Your task to perform on an android device: Open calendar and show me the first week of next month Image 0: 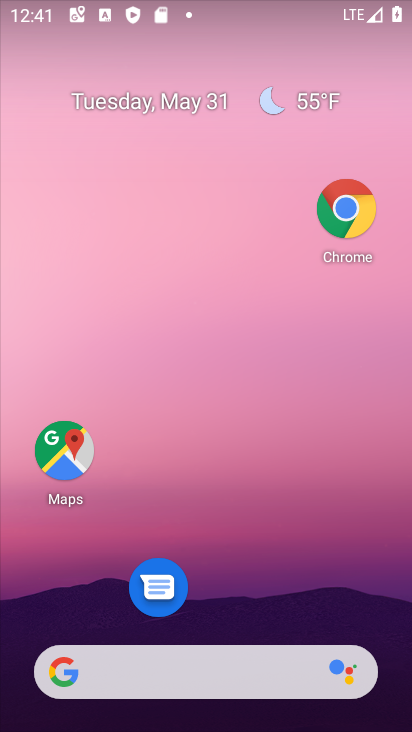
Step 0: click (174, 107)
Your task to perform on an android device: Open calendar and show me the first week of next month Image 1: 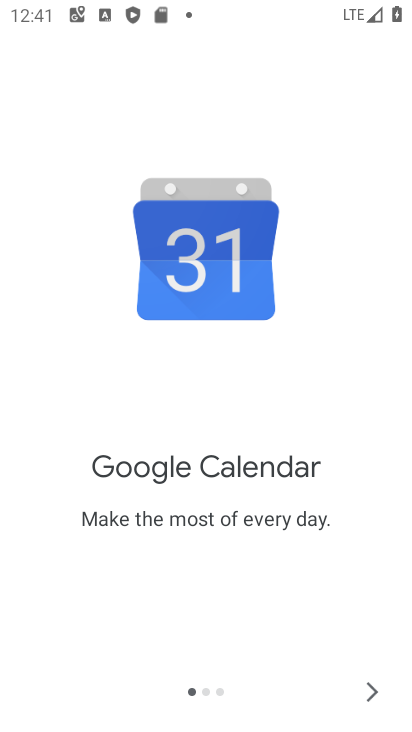
Step 1: click (384, 694)
Your task to perform on an android device: Open calendar and show me the first week of next month Image 2: 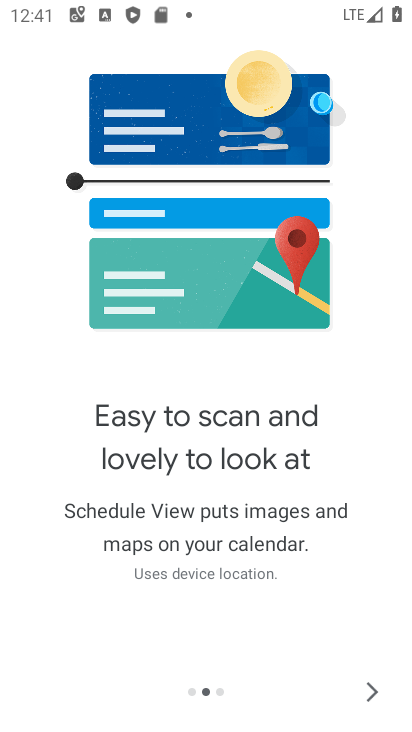
Step 2: click (384, 694)
Your task to perform on an android device: Open calendar and show me the first week of next month Image 3: 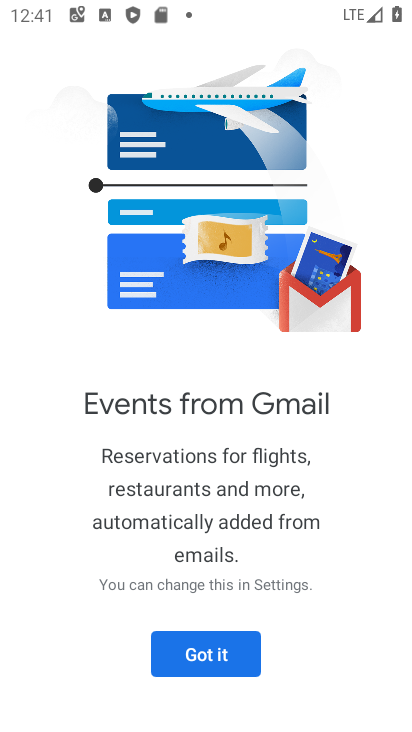
Step 3: click (179, 655)
Your task to perform on an android device: Open calendar and show me the first week of next month Image 4: 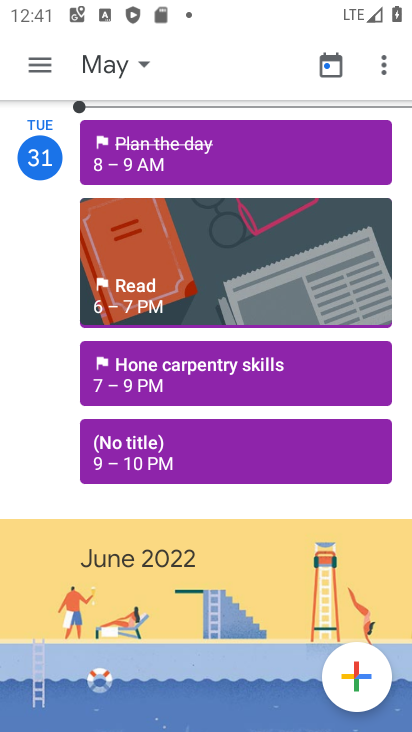
Step 4: click (107, 58)
Your task to perform on an android device: Open calendar and show me the first week of next month Image 5: 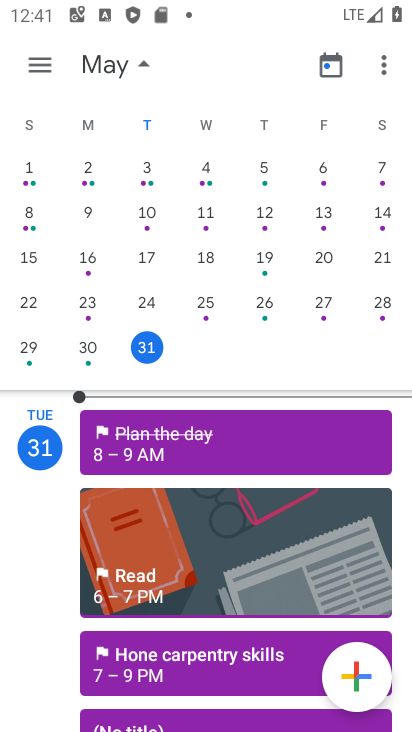
Step 5: task complete